Your task to perform on an android device: turn off smart reply in the gmail app Image 0: 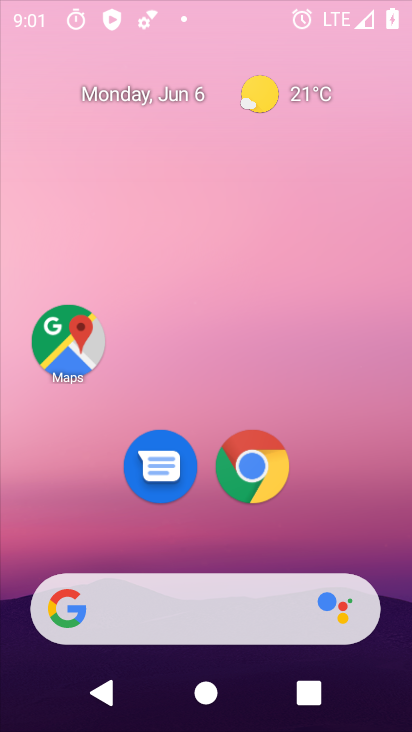
Step 0: click (255, 66)
Your task to perform on an android device: turn off smart reply in the gmail app Image 1: 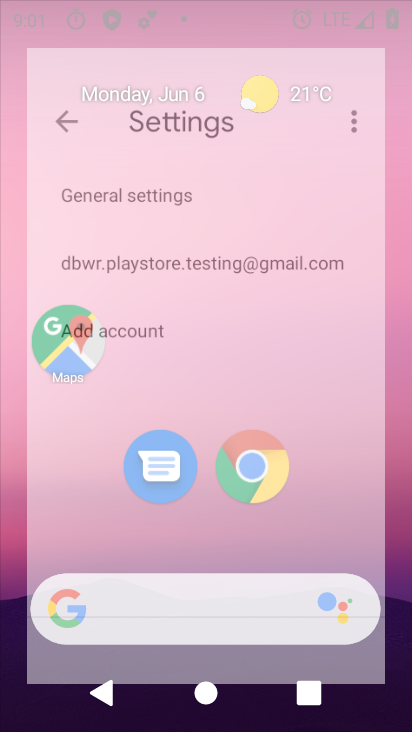
Step 1: drag from (213, 518) to (270, 90)
Your task to perform on an android device: turn off smart reply in the gmail app Image 2: 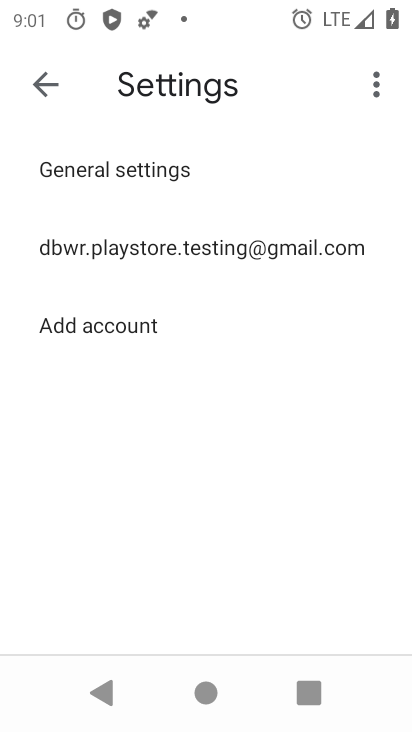
Step 2: press home button
Your task to perform on an android device: turn off smart reply in the gmail app Image 3: 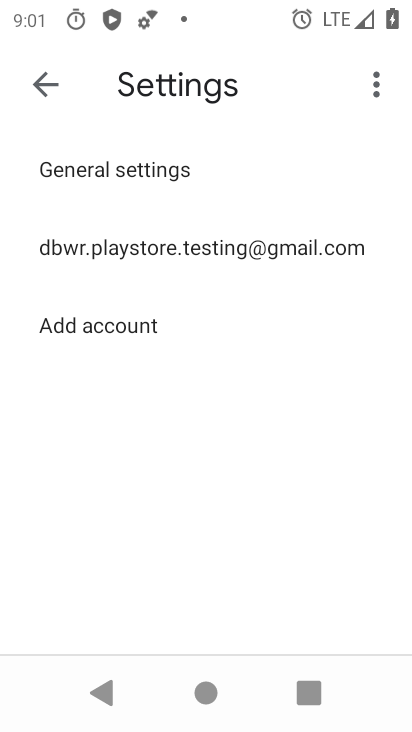
Step 3: drag from (224, 236) to (254, 140)
Your task to perform on an android device: turn off smart reply in the gmail app Image 4: 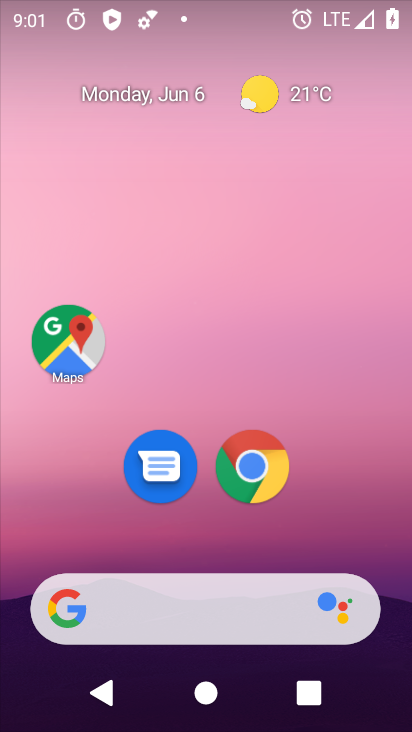
Step 4: drag from (227, 540) to (297, 24)
Your task to perform on an android device: turn off smart reply in the gmail app Image 5: 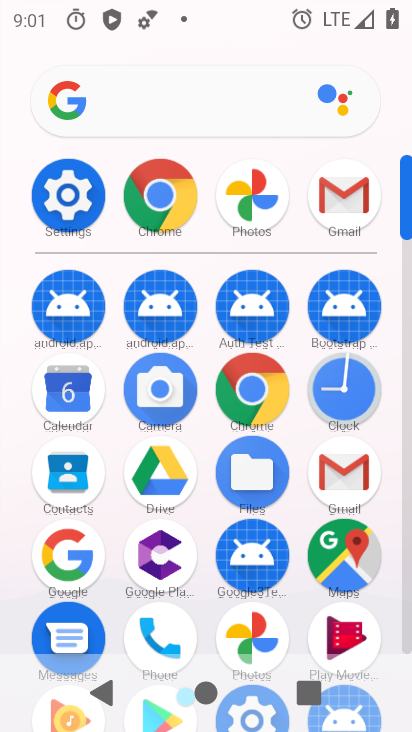
Step 5: click (332, 458)
Your task to perform on an android device: turn off smart reply in the gmail app Image 6: 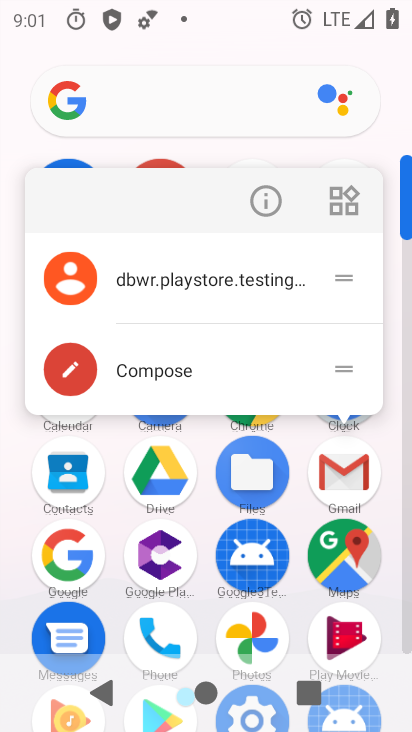
Step 6: click (266, 210)
Your task to perform on an android device: turn off smart reply in the gmail app Image 7: 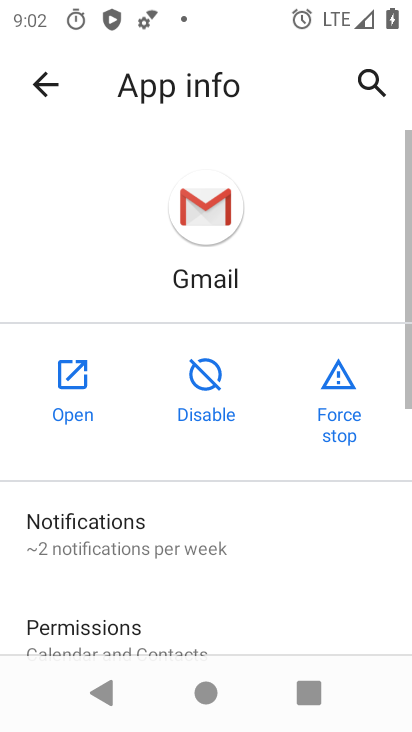
Step 7: click (67, 380)
Your task to perform on an android device: turn off smart reply in the gmail app Image 8: 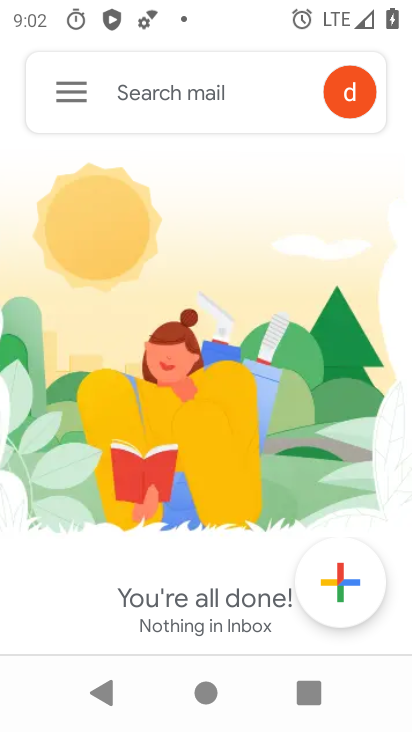
Step 8: drag from (228, 552) to (324, 268)
Your task to perform on an android device: turn off smart reply in the gmail app Image 9: 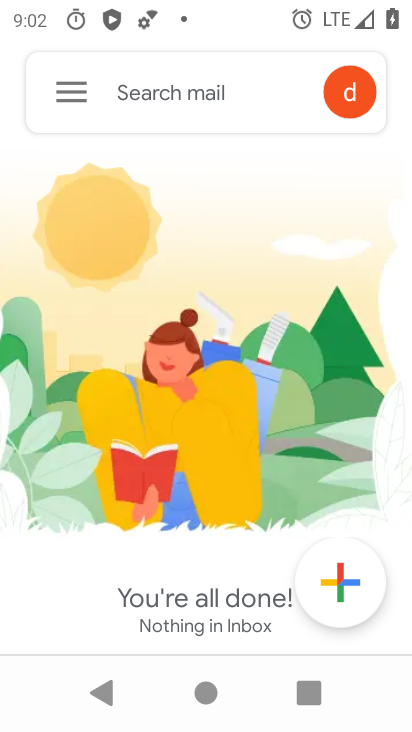
Step 9: drag from (203, 552) to (267, 274)
Your task to perform on an android device: turn off smart reply in the gmail app Image 10: 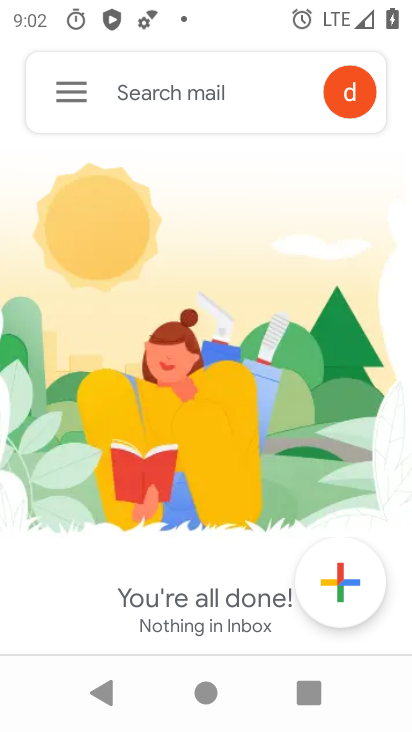
Step 10: drag from (230, 596) to (291, 298)
Your task to perform on an android device: turn off smart reply in the gmail app Image 11: 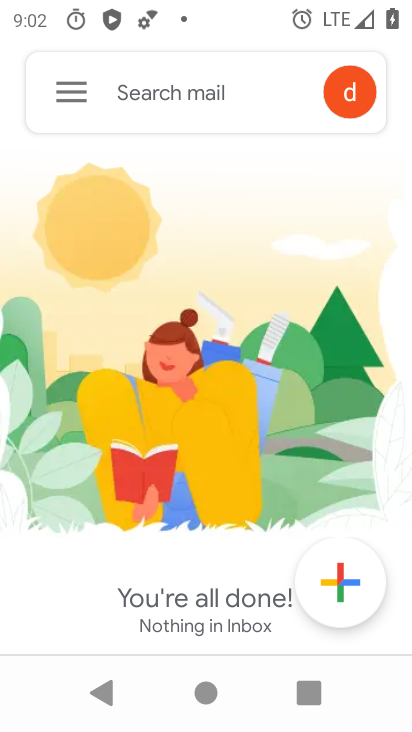
Step 11: drag from (203, 538) to (260, 346)
Your task to perform on an android device: turn off smart reply in the gmail app Image 12: 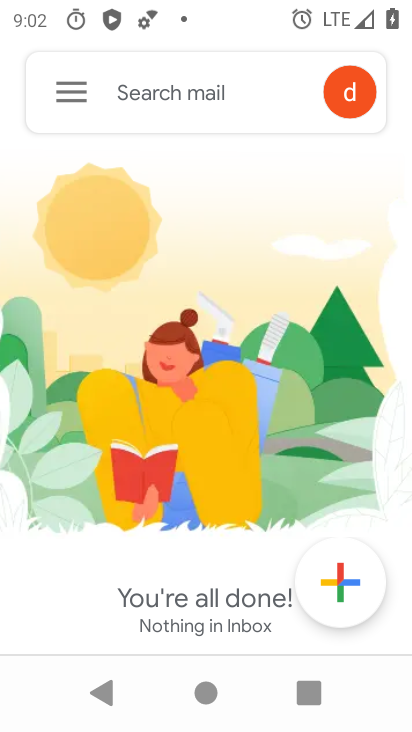
Step 12: click (61, 90)
Your task to perform on an android device: turn off smart reply in the gmail app Image 13: 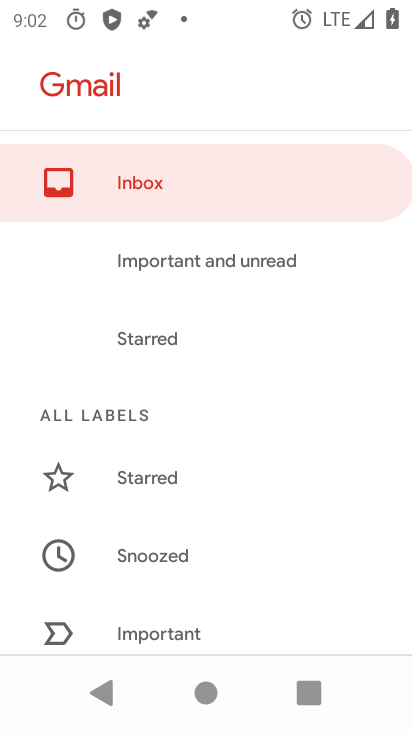
Step 13: drag from (197, 539) to (313, 27)
Your task to perform on an android device: turn off smart reply in the gmail app Image 14: 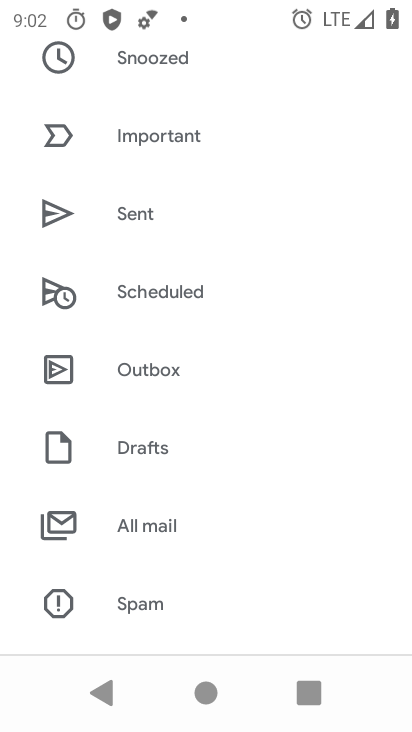
Step 14: drag from (195, 317) to (293, 5)
Your task to perform on an android device: turn off smart reply in the gmail app Image 15: 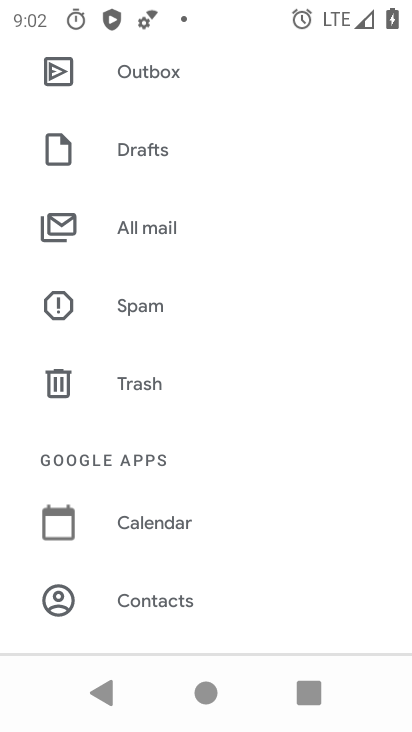
Step 15: drag from (189, 515) to (316, 57)
Your task to perform on an android device: turn off smart reply in the gmail app Image 16: 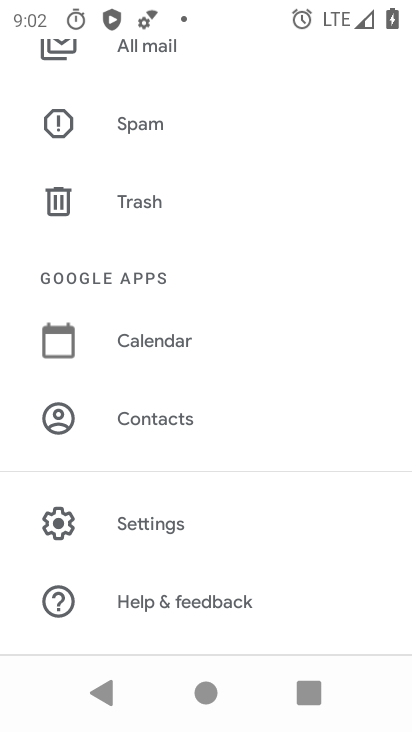
Step 16: click (153, 529)
Your task to perform on an android device: turn off smart reply in the gmail app Image 17: 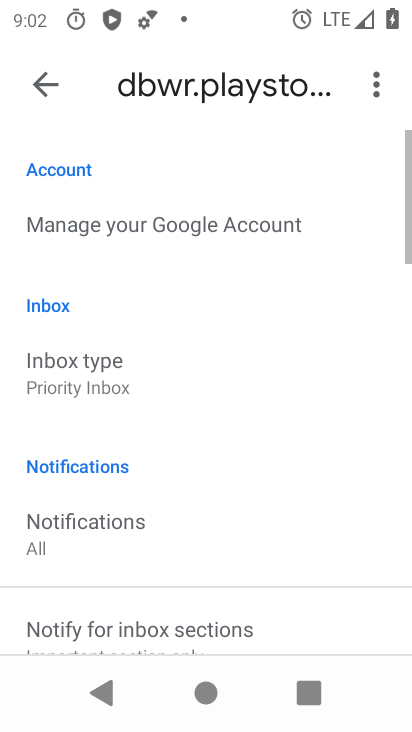
Step 17: drag from (237, 536) to (308, 66)
Your task to perform on an android device: turn off smart reply in the gmail app Image 18: 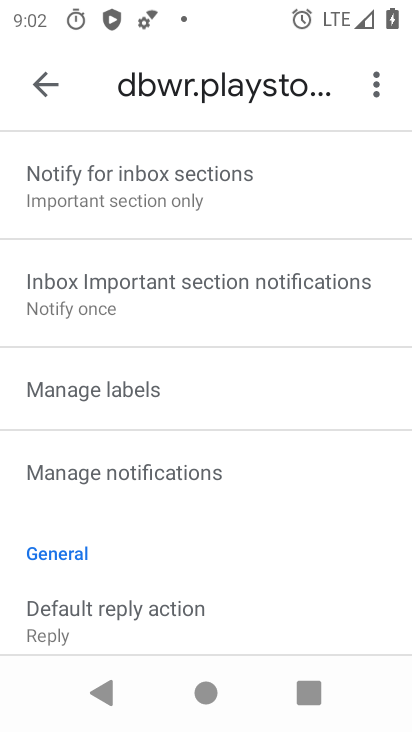
Step 18: drag from (116, 555) to (224, 106)
Your task to perform on an android device: turn off smart reply in the gmail app Image 19: 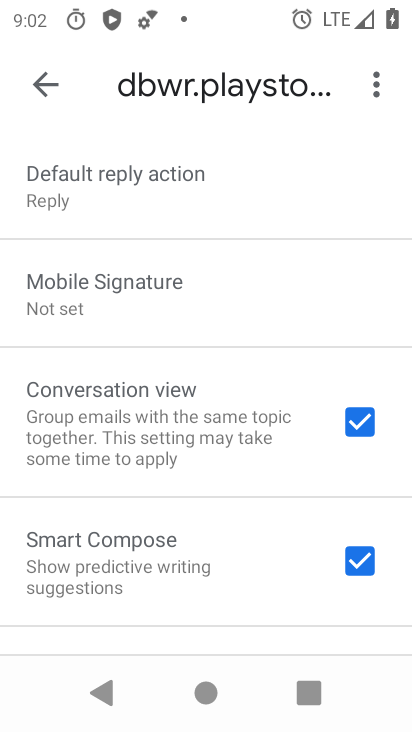
Step 19: drag from (178, 510) to (267, 116)
Your task to perform on an android device: turn off smart reply in the gmail app Image 20: 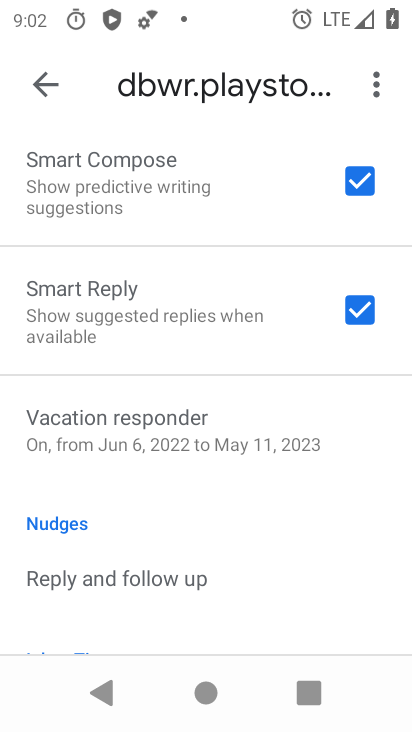
Step 20: click (355, 309)
Your task to perform on an android device: turn off smart reply in the gmail app Image 21: 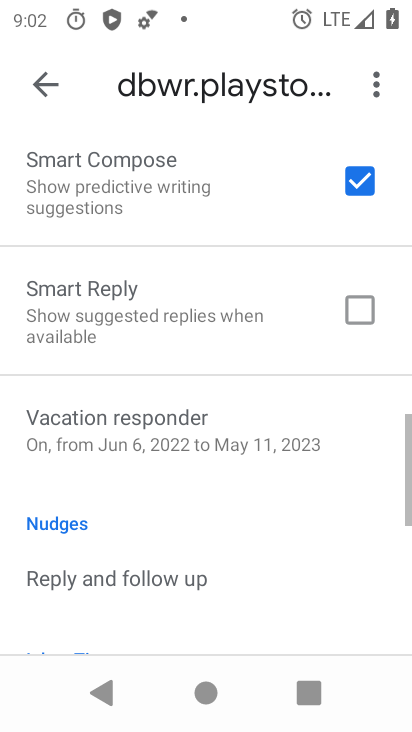
Step 21: task complete